Your task to perform on an android device: open app "Flipkart Online Shopping App" Image 0: 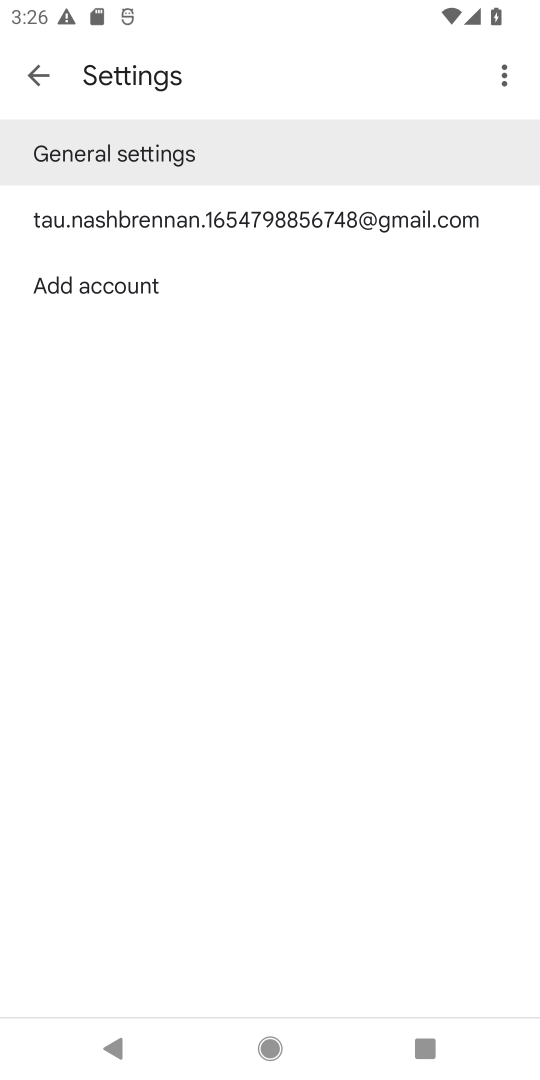
Step 0: press home button
Your task to perform on an android device: open app "Flipkart Online Shopping App" Image 1: 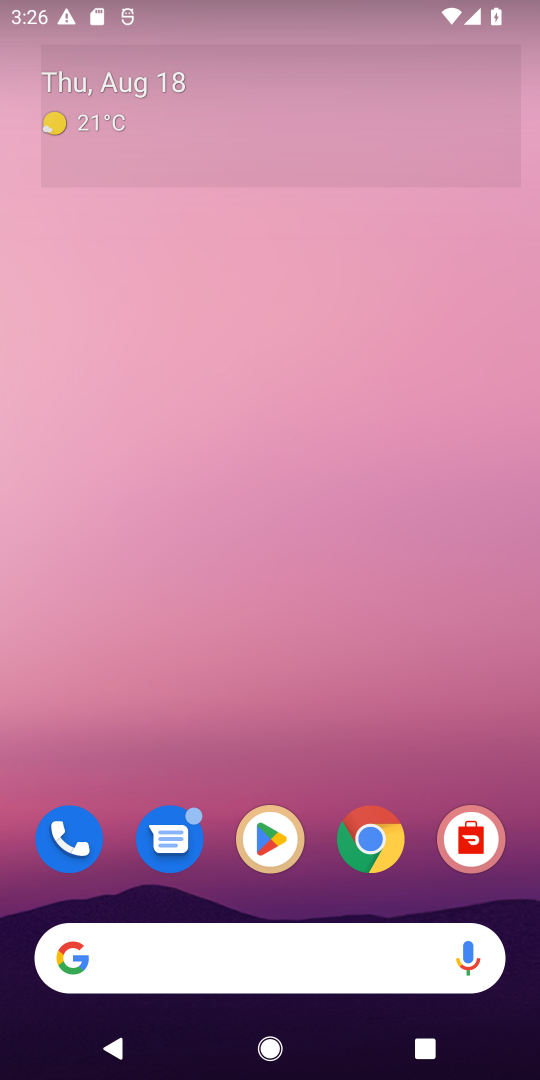
Step 1: click (279, 851)
Your task to perform on an android device: open app "Flipkart Online Shopping App" Image 2: 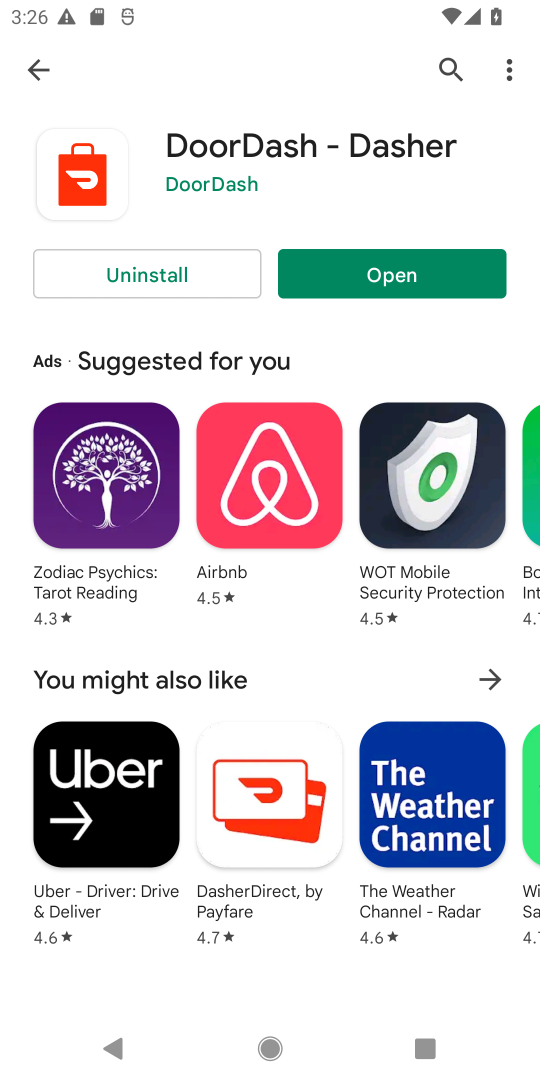
Step 2: click (41, 79)
Your task to perform on an android device: open app "Flipkart Online Shopping App" Image 3: 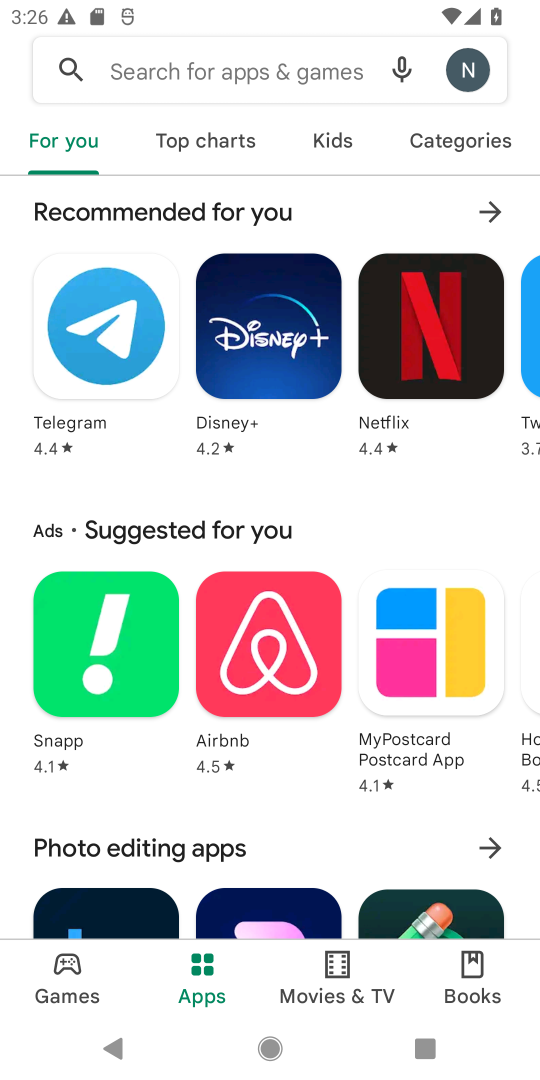
Step 3: click (108, 65)
Your task to perform on an android device: open app "Flipkart Online Shopping App" Image 4: 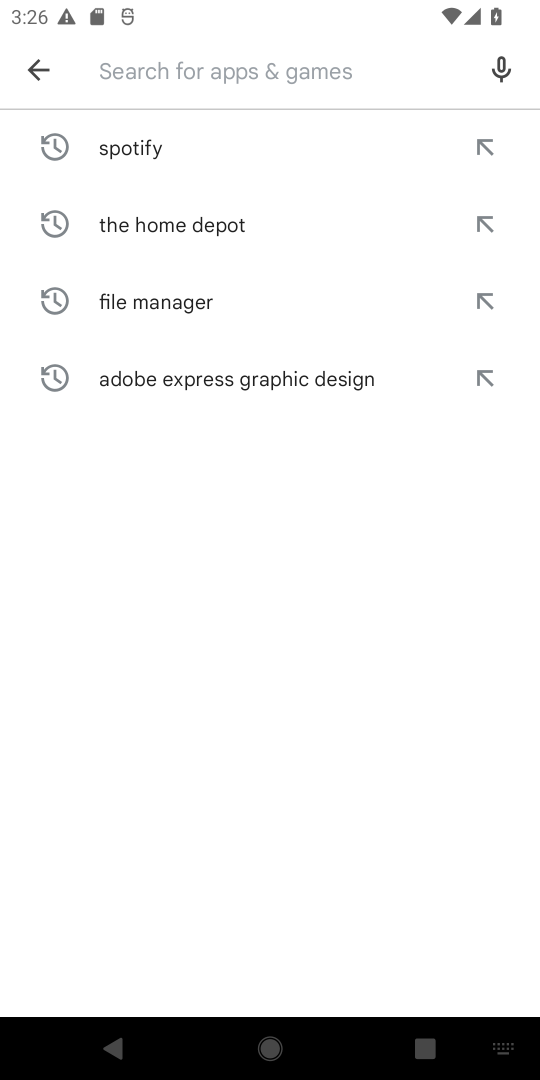
Step 4: type "Flipkart Online Shopping App"
Your task to perform on an android device: open app "Flipkart Online Shopping App" Image 5: 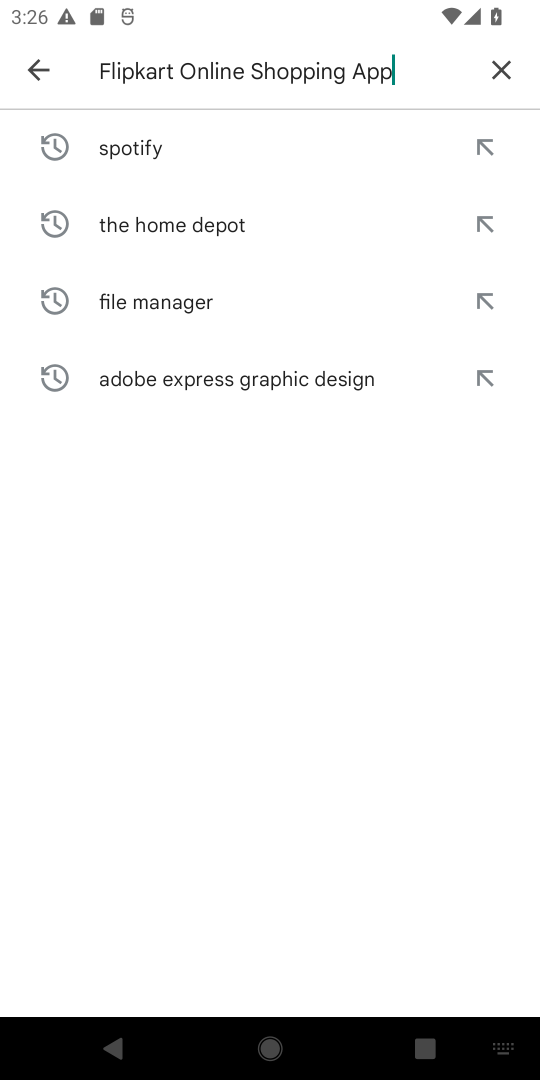
Step 5: type ""
Your task to perform on an android device: open app "Flipkart Online Shopping App" Image 6: 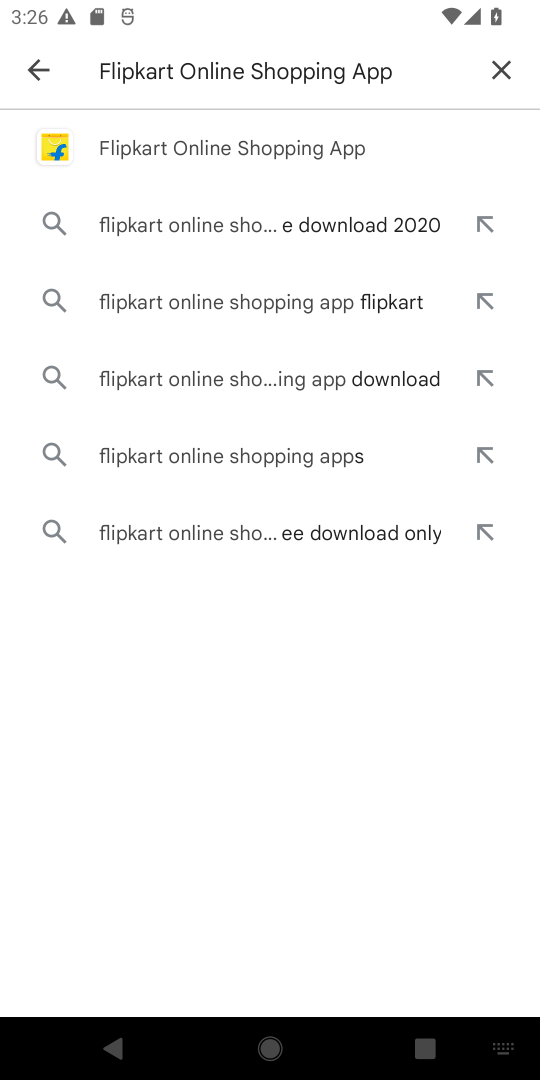
Step 6: click (174, 124)
Your task to perform on an android device: open app "Flipkart Online Shopping App" Image 7: 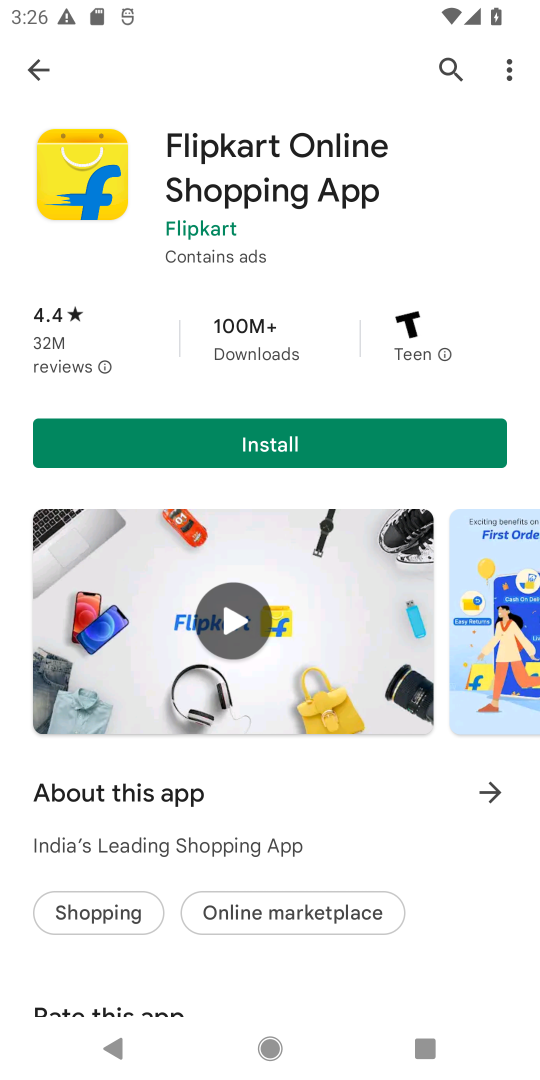
Step 7: task complete